Your task to perform on an android device: Is it going to rain tomorrow? Image 0: 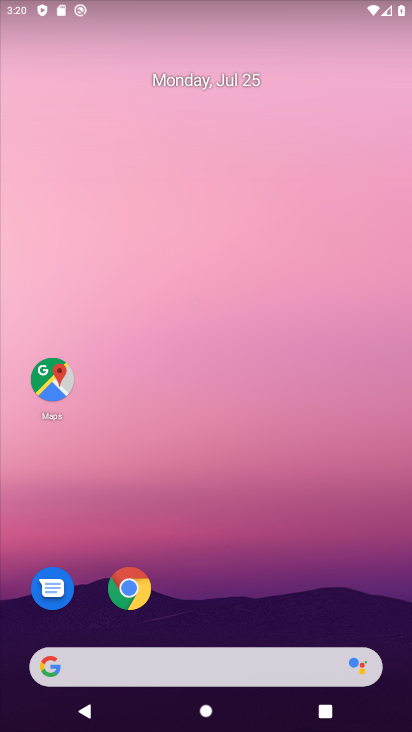
Step 0: drag from (7, 201) to (351, 206)
Your task to perform on an android device: Is it going to rain tomorrow? Image 1: 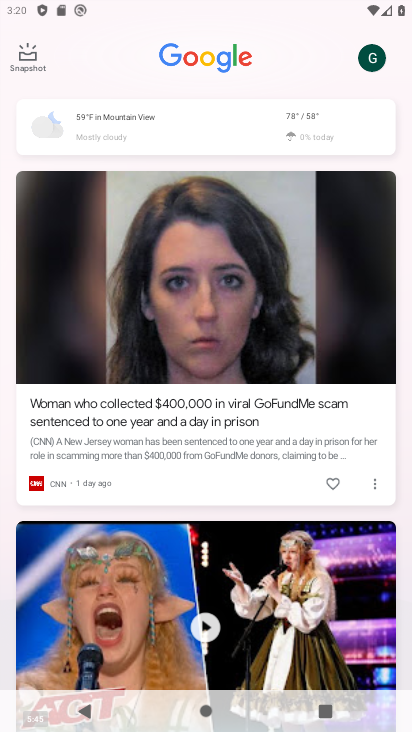
Step 1: click (312, 116)
Your task to perform on an android device: Is it going to rain tomorrow? Image 2: 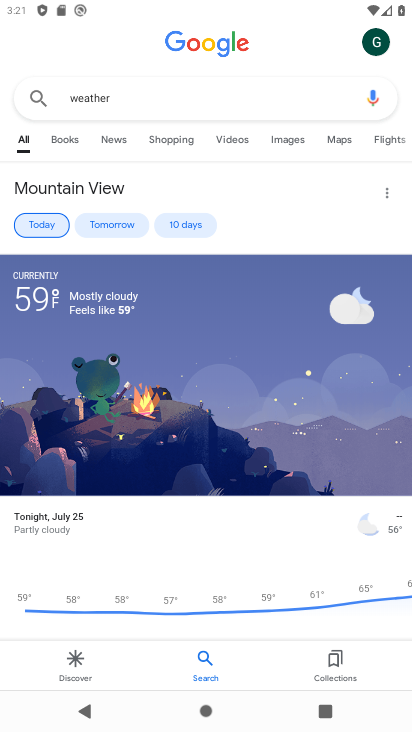
Step 2: click (124, 232)
Your task to perform on an android device: Is it going to rain tomorrow? Image 3: 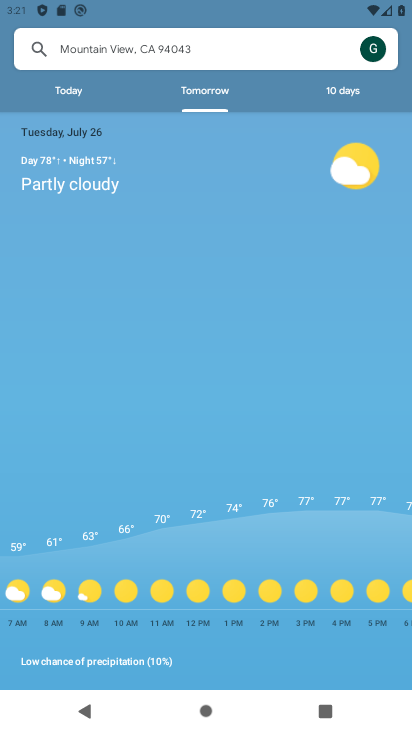
Step 3: task complete